Your task to perform on an android device: find which apps use the phone's location Image 0: 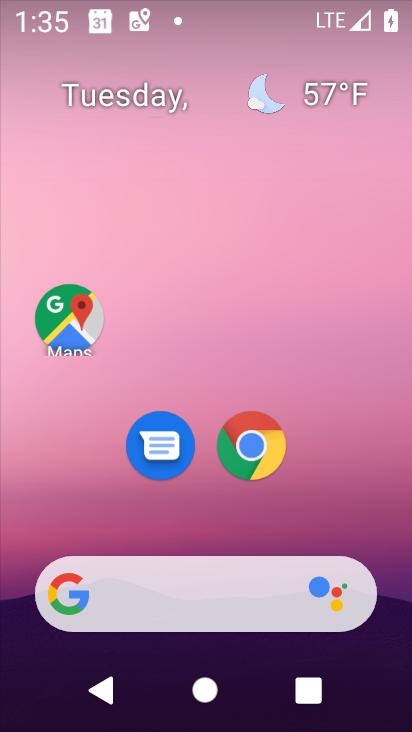
Step 0: drag from (340, 492) to (343, 157)
Your task to perform on an android device: find which apps use the phone's location Image 1: 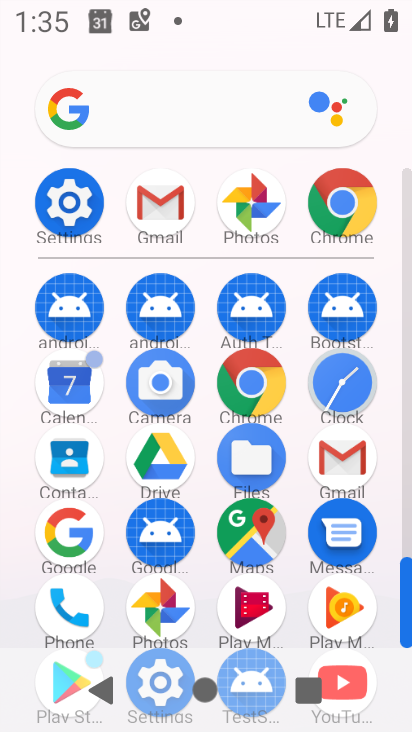
Step 1: click (77, 223)
Your task to perform on an android device: find which apps use the phone's location Image 2: 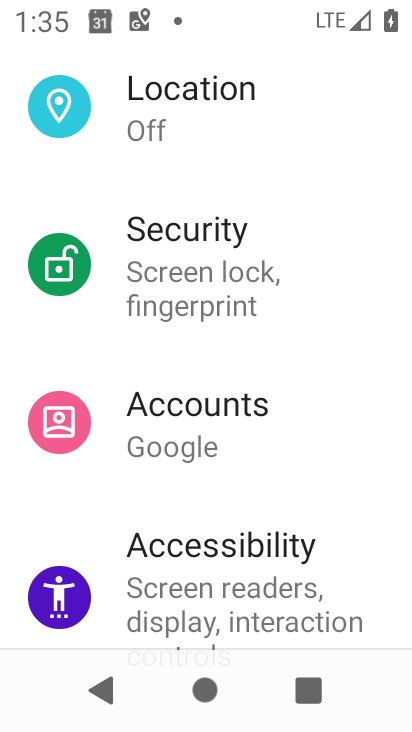
Step 2: drag from (338, 202) to (342, 371)
Your task to perform on an android device: find which apps use the phone's location Image 3: 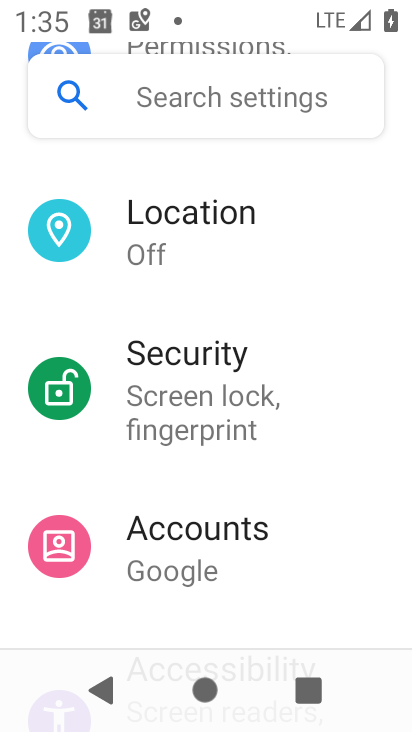
Step 3: drag from (327, 206) to (310, 362)
Your task to perform on an android device: find which apps use the phone's location Image 4: 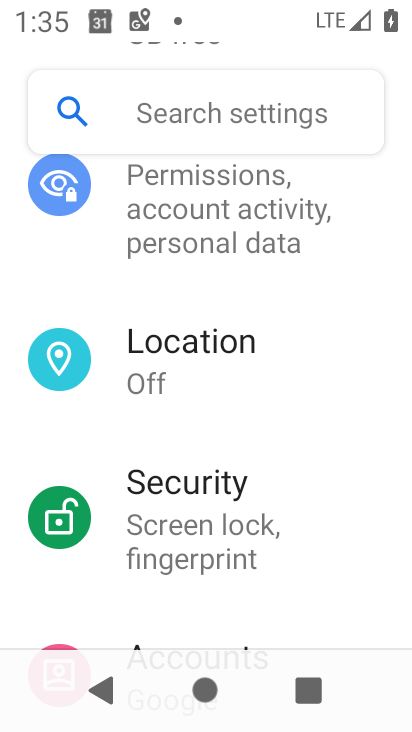
Step 4: drag from (342, 191) to (349, 406)
Your task to perform on an android device: find which apps use the phone's location Image 5: 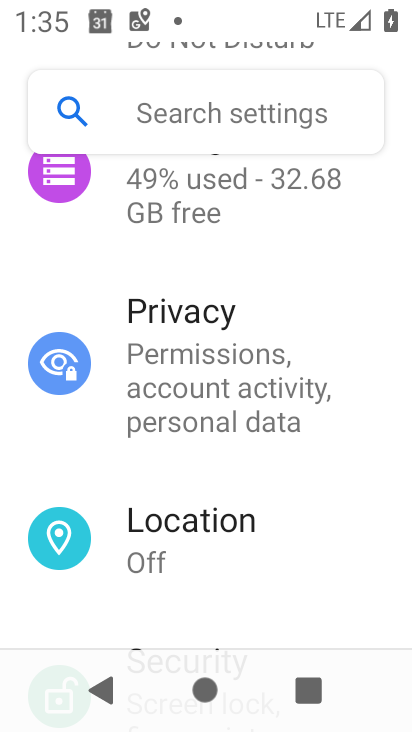
Step 5: click (200, 540)
Your task to perform on an android device: find which apps use the phone's location Image 6: 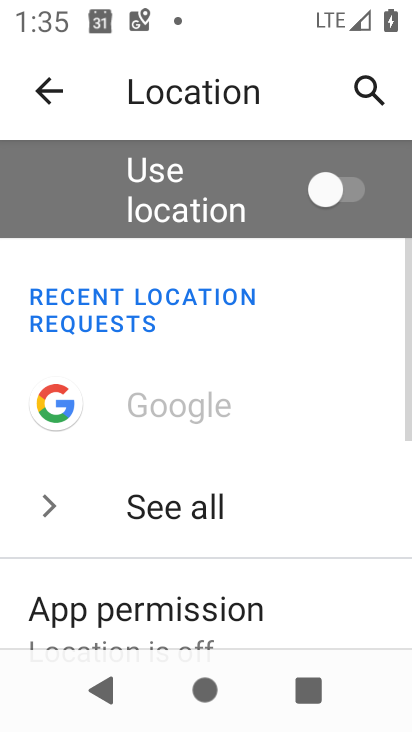
Step 6: drag from (344, 519) to (348, 359)
Your task to perform on an android device: find which apps use the phone's location Image 7: 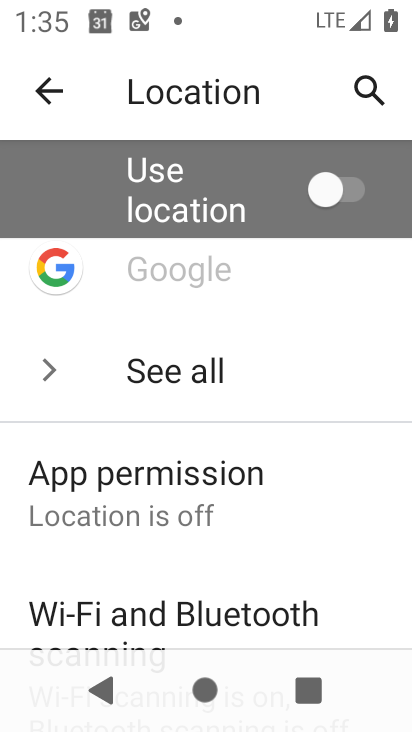
Step 7: drag from (352, 536) to (347, 412)
Your task to perform on an android device: find which apps use the phone's location Image 8: 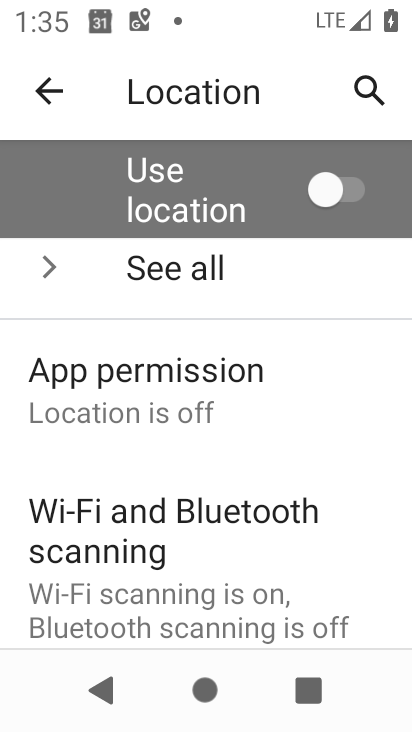
Step 8: drag from (343, 544) to (353, 441)
Your task to perform on an android device: find which apps use the phone's location Image 9: 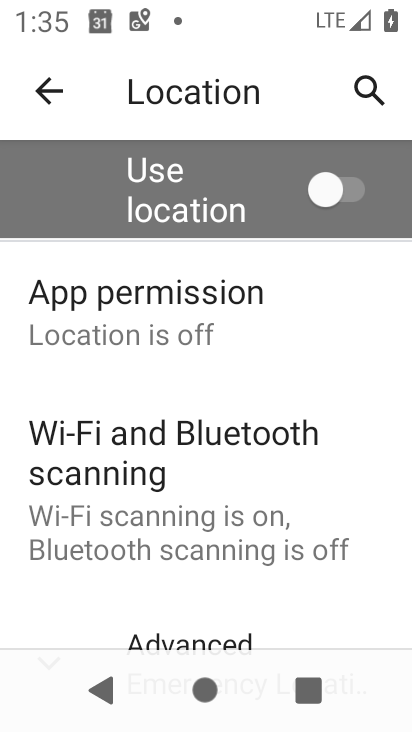
Step 9: click (161, 332)
Your task to perform on an android device: find which apps use the phone's location Image 10: 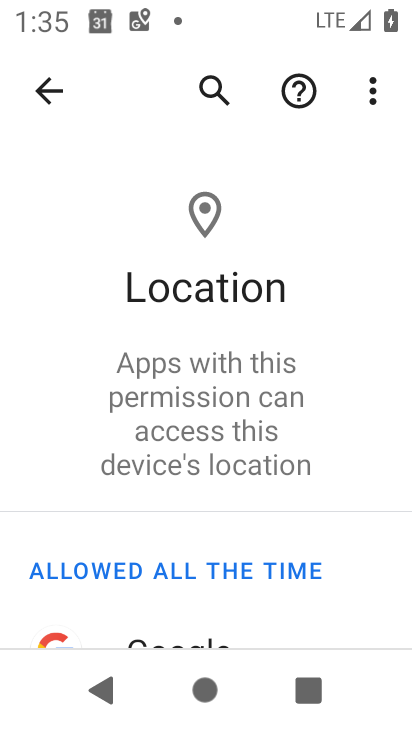
Step 10: drag from (334, 417) to (345, 234)
Your task to perform on an android device: find which apps use the phone's location Image 11: 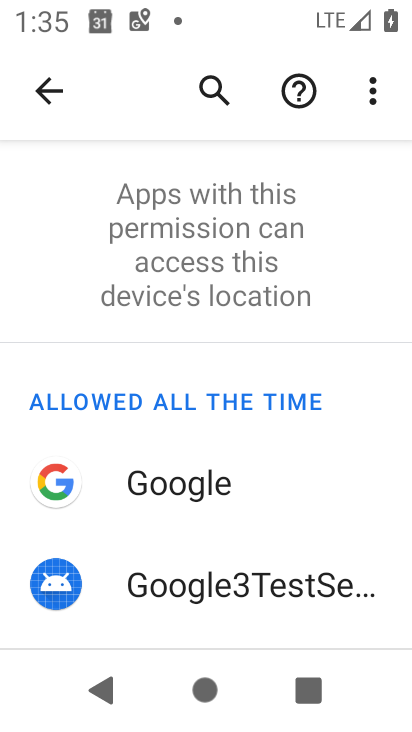
Step 11: drag from (324, 504) to (321, 304)
Your task to perform on an android device: find which apps use the phone's location Image 12: 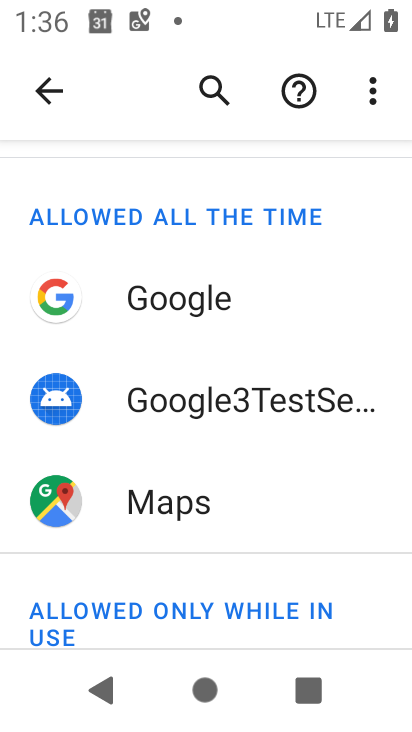
Step 12: drag from (330, 513) to (331, 367)
Your task to perform on an android device: find which apps use the phone's location Image 13: 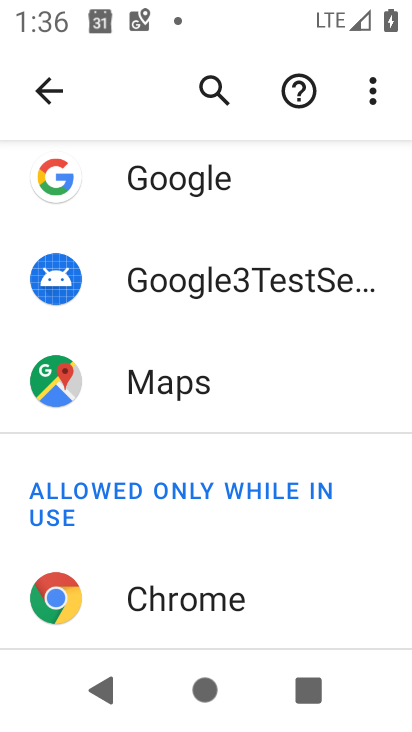
Step 13: drag from (331, 558) to (340, 434)
Your task to perform on an android device: find which apps use the phone's location Image 14: 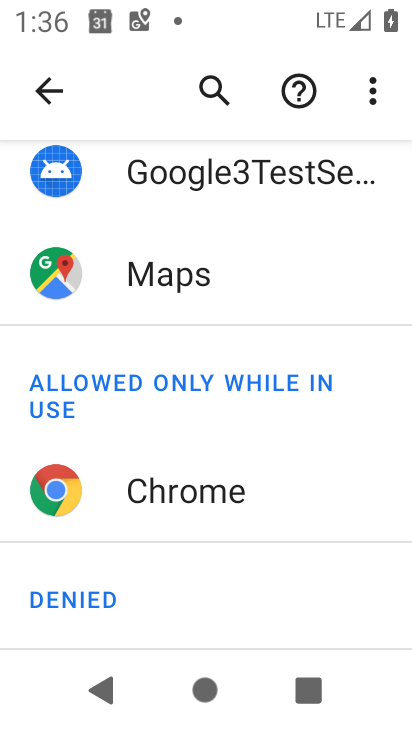
Step 14: drag from (308, 586) to (309, 407)
Your task to perform on an android device: find which apps use the phone's location Image 15: 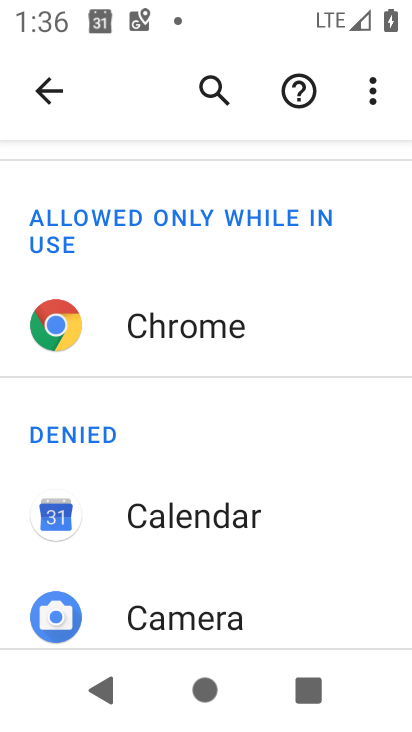
Step 15: drag from (339, 575) to (348, 382)
Your task to perform on an android device: find which apps use the phone's location Image 16: 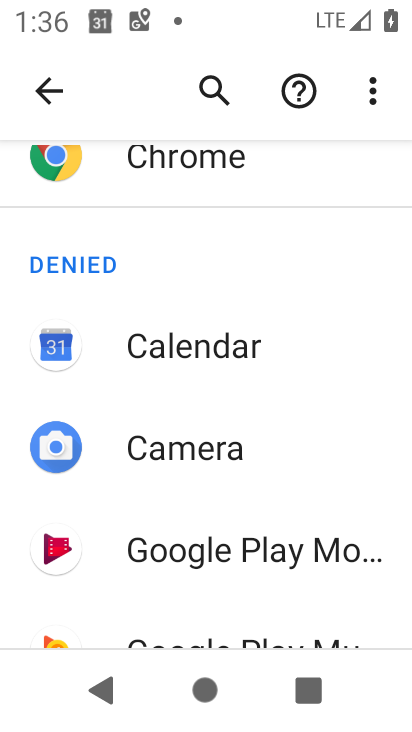
Step 16: drag from (327, 585) to (335, 383)
Your task to perform on an android device: find which apps use the phone's location Image 17: 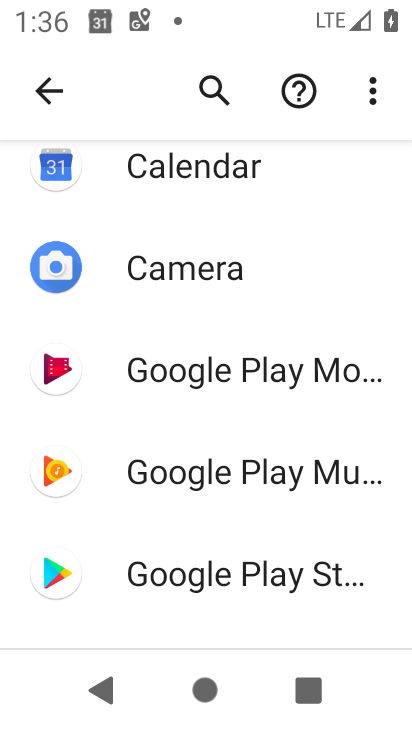
Step 17: drag from (331, 599) to (336, 445)
Your task to perform on an android device: find which apps use the phone's location Image 18: 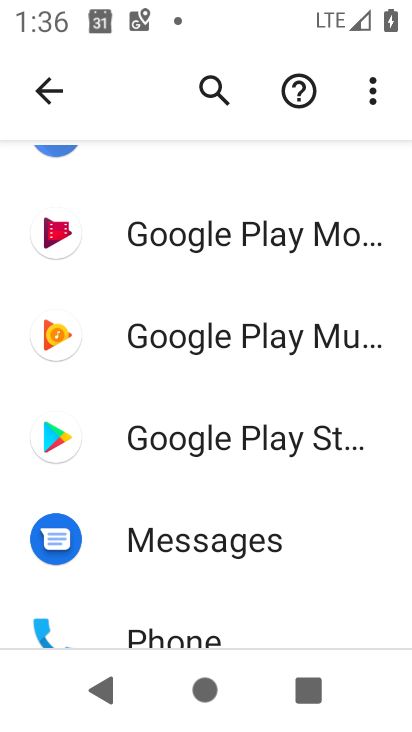
Step 18: drag from (320, 575) to (327, 426)
Your task to perform on an android device: find which apps use the phone's location Image 19: 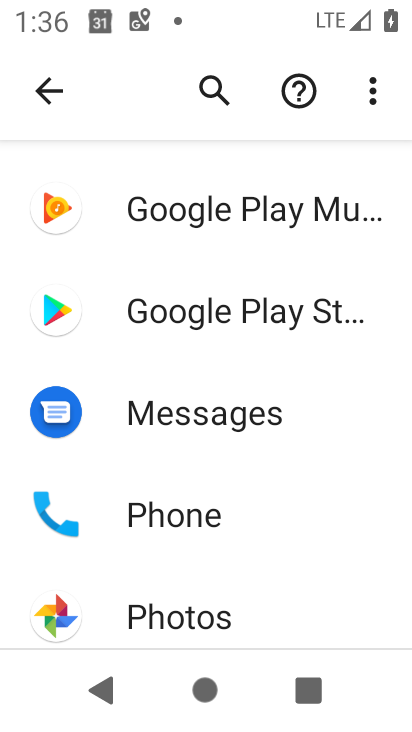
Step 19: drag from (323, 549) to (336, 396)
Your task to perform on an android device: find which apps use the phone's location Image 20: 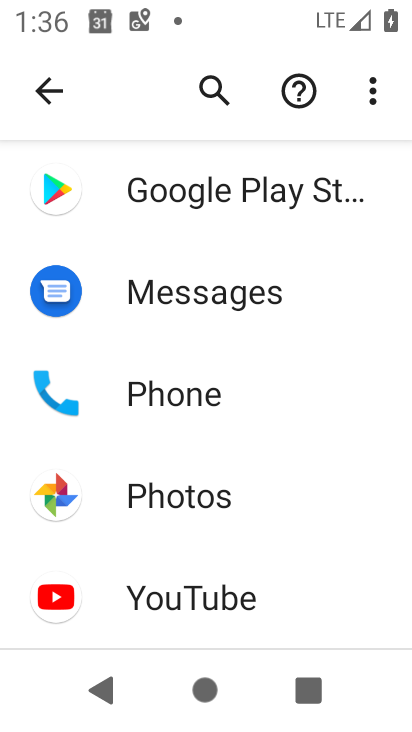
Step 20: drag from (318, 548) to (317, 436)
Your task to perform on an android device: find which apps use the phone's location Image 21: 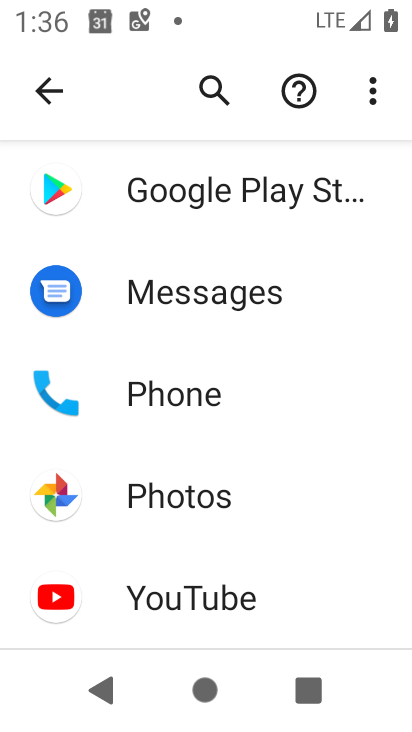
Step 21: click (215, 500)
Your task to perform on an android device: find which apps use the phone's location Image 22: 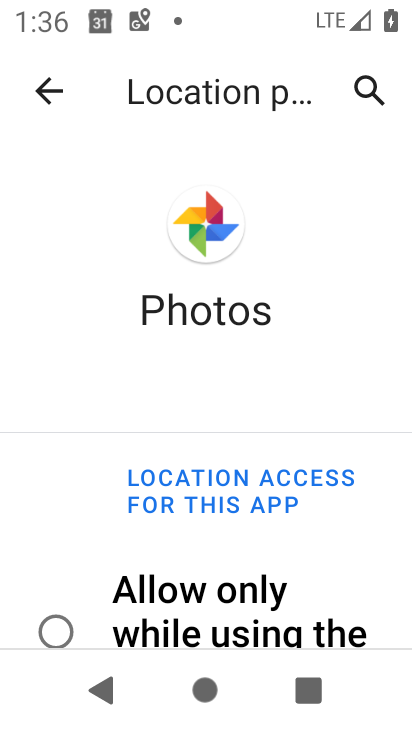
Step 22: drag from (192, 533) to (200, 373)
Your task to perform on an android device: find which apps use the phone's location Image 23: 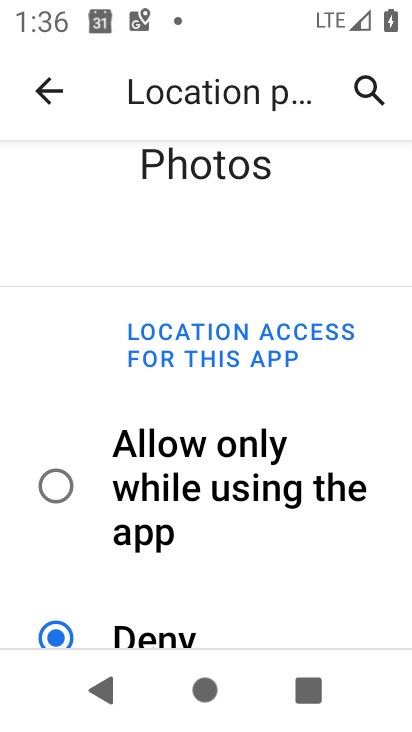
Step 23: click (56, 489)
Your task to perform on an android device: find which apps use the phone's location Image 24: 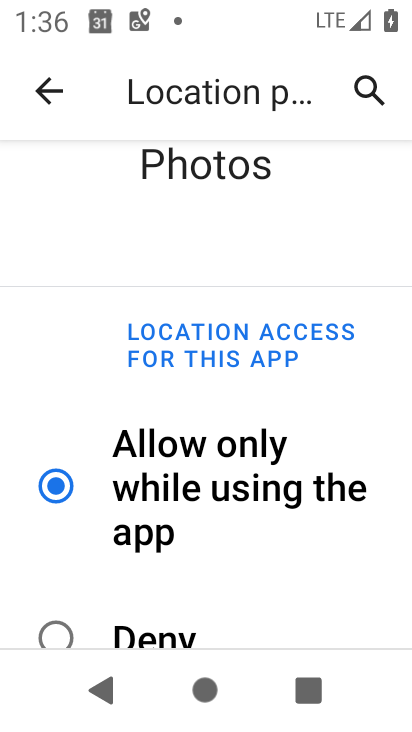
Step 24: task complete